Your task to perform on an android device: empty trash in the gmail app Image 0: 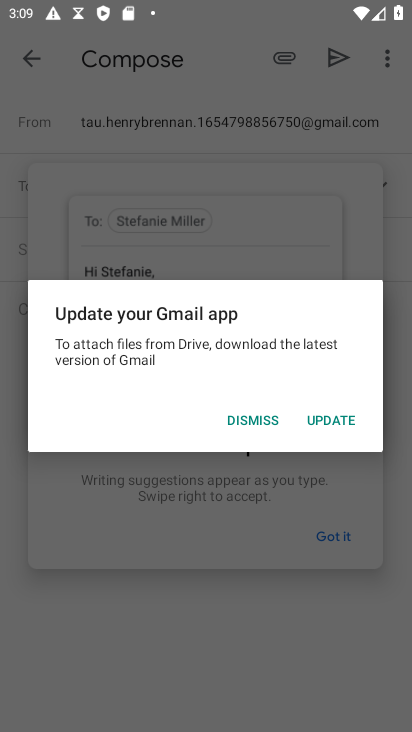
Step 0: press home button
Your task to perform on an android device: empty trash in the gmail app Image 1: 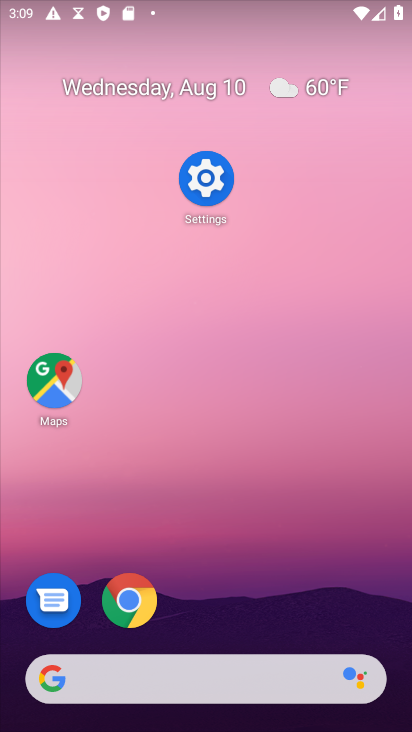
Step 1: drag from (265, 610) to (245, 167)
Your task to perform on an android device: empty trash in the gmail app Image 2: 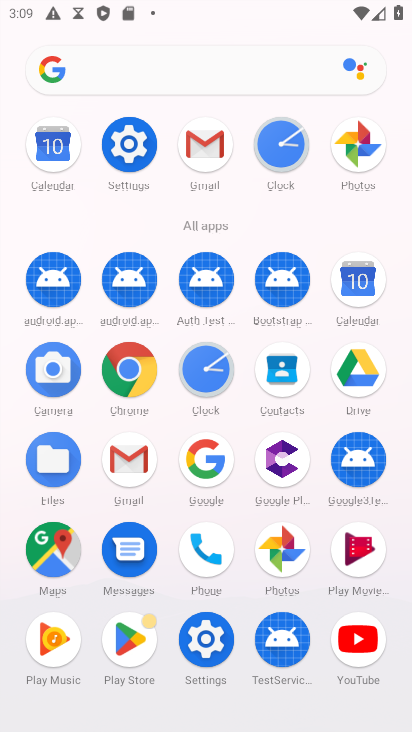
Step 2: click (208, 145)
Your task to perform on an android device: empty trash in the gmail app Image 3: 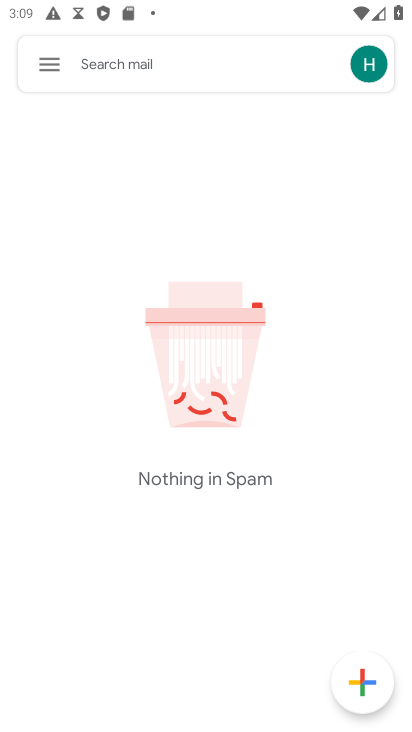
Step 3: click (49, 71)
Your task to perform on an android device: empty trash in the gmail app Image 4: 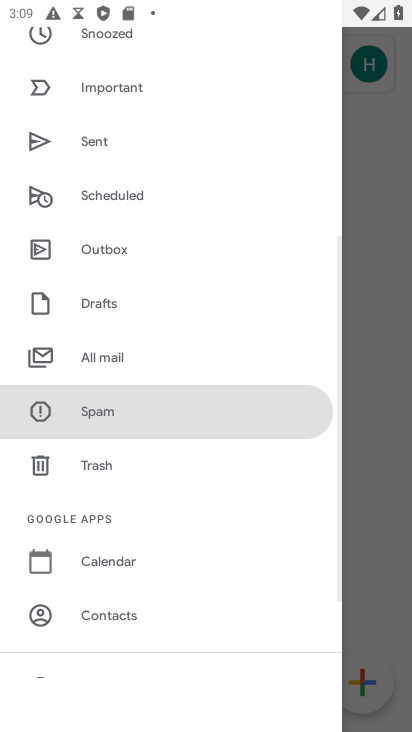
Step 4: click (98, 461)
Your task to perform on an android device: empty trash in the gmail app Image 5: 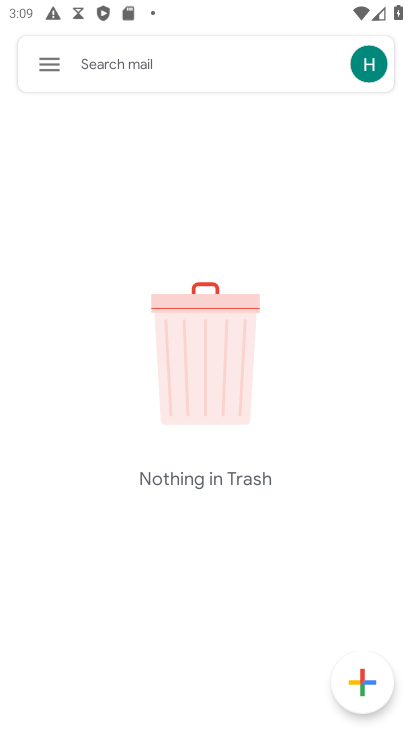
Step 5: task complete